Your task to perform on an android device: turn off notifications settings in the gmail app Image 0: 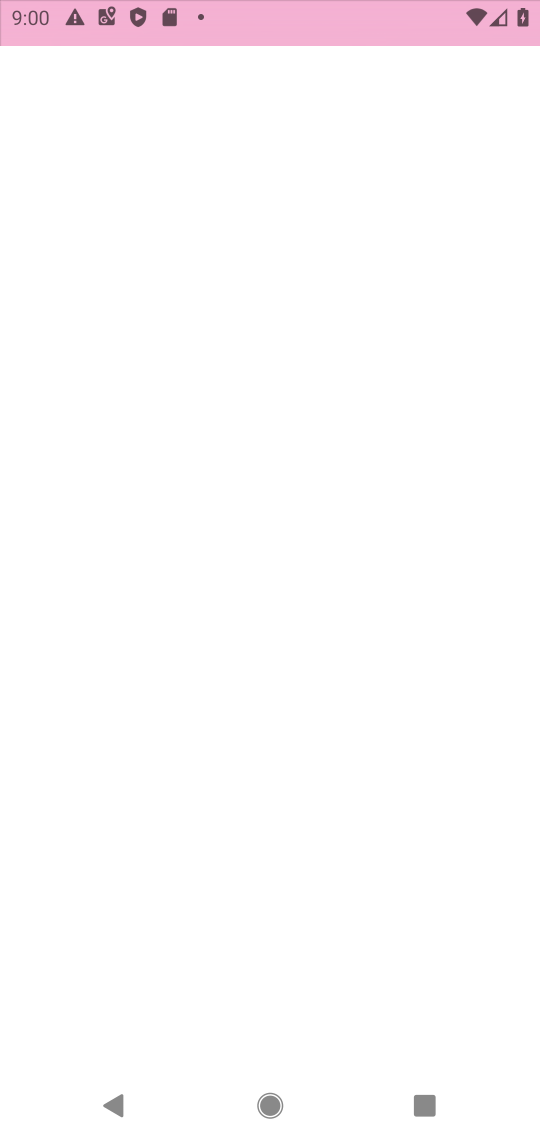
Step 0: press home button
Your task to perform on an android device: turn off notifications settings in the gmail app Image 1: 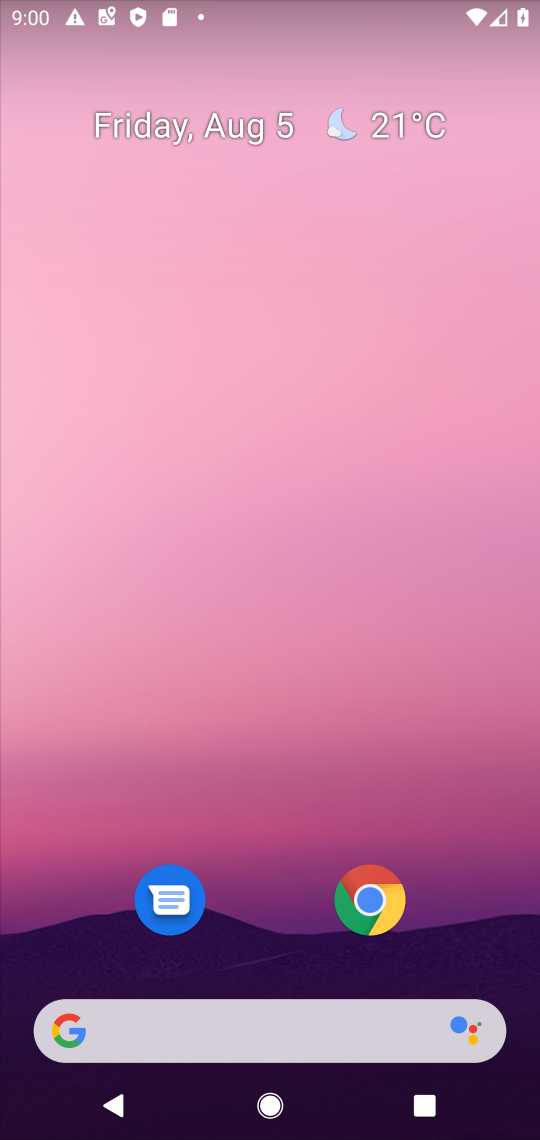
Step 1: drag from (242, 879) to (255, 98)
Your task to perform on an android device: turn off notifications settings in the gmail app Image 2: 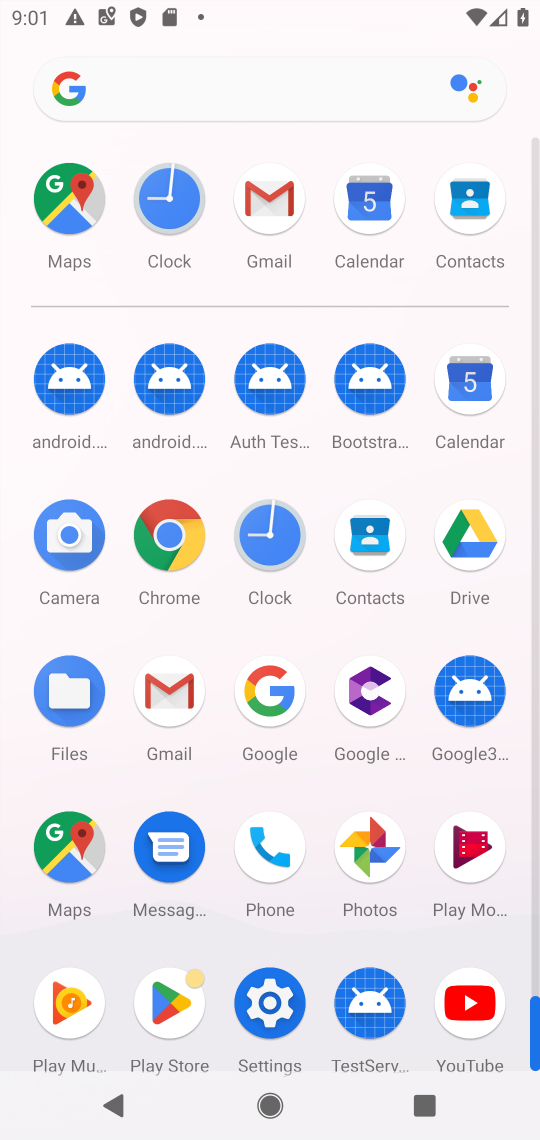
Step 2: click (162, 704)
Your task to perform on an android device: turn off notifications settings in the gmail app Image 3: 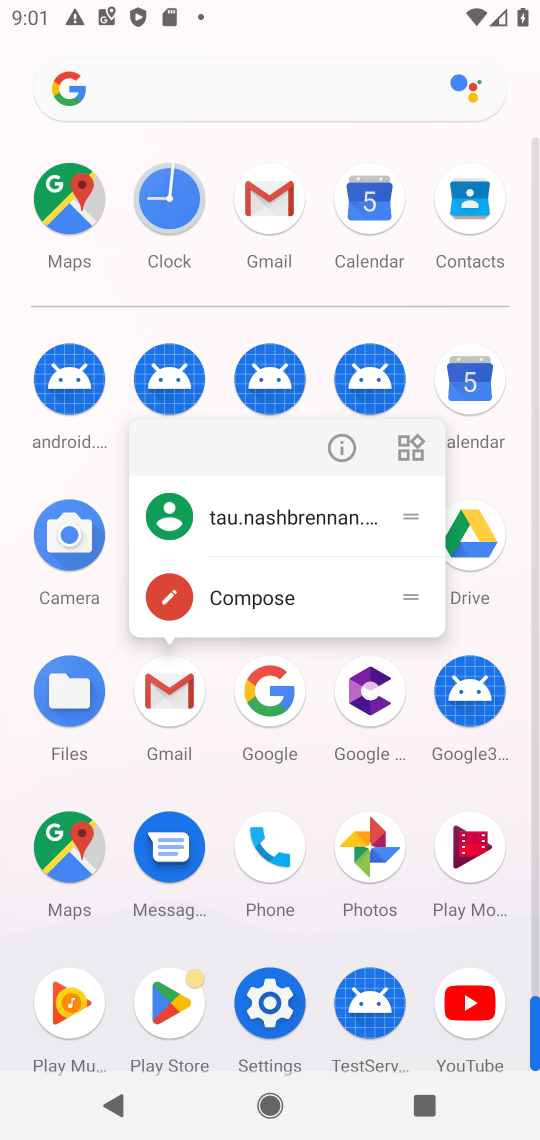
Step 3: click (345, 443)
Your task to perform on an android device: turn off notifications settings in the gmail app Image 4: 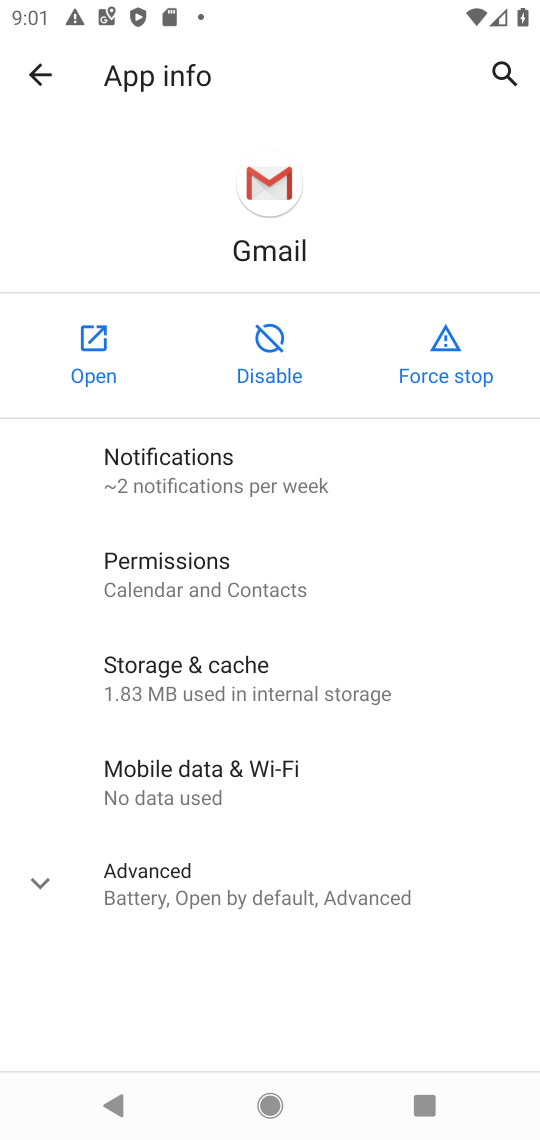
Step 4: click (201, 479)
Your task to perform on an android device: turn off notifications settings in the gmail app Image 5: 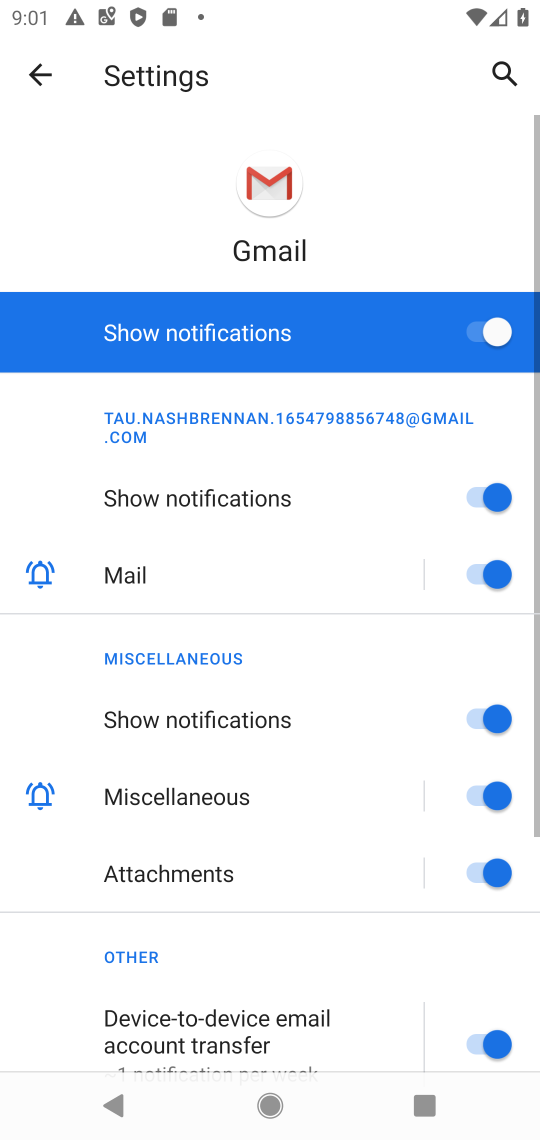
Step 5: click (366, 317)
Your task to perform on an android device: turn off notifications settings in the gmail app Image 6: 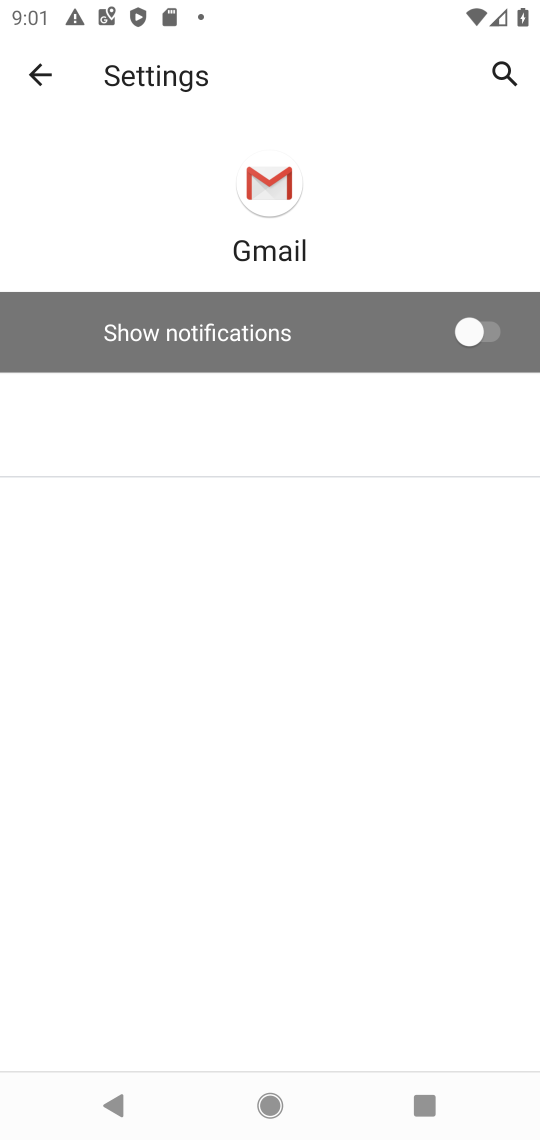
Step 6: task complete